Your task to perform on an android device: open device folders in google photos Image 0: 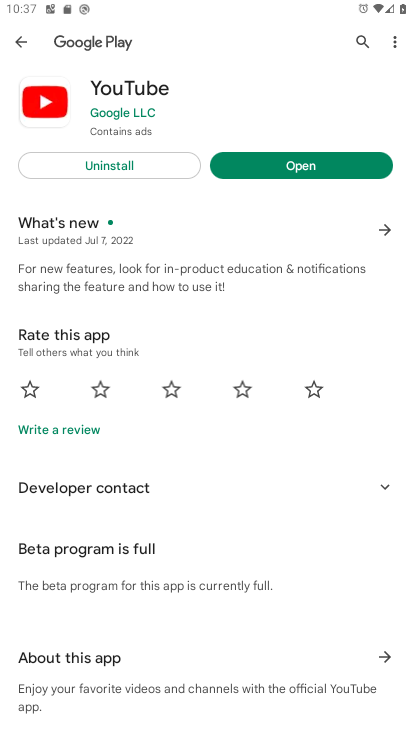
Step 0: click (332, 168)
Your task to perform on an android device: open device folders in google photos Image 1: 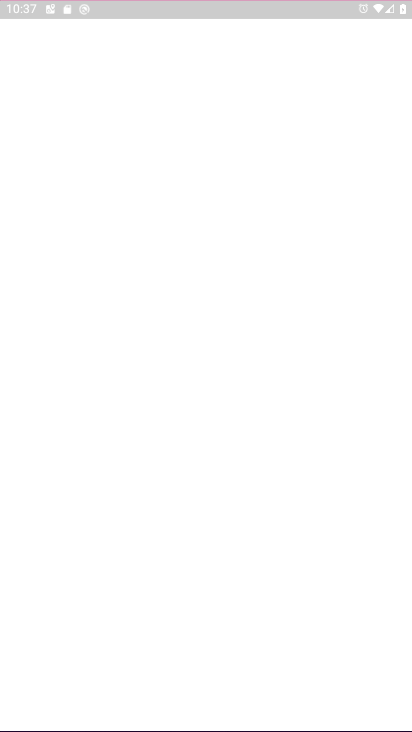
Step 1: task complete